Your task to perform on an android device: Open calendar and show me the fourth week of next month Image 0: 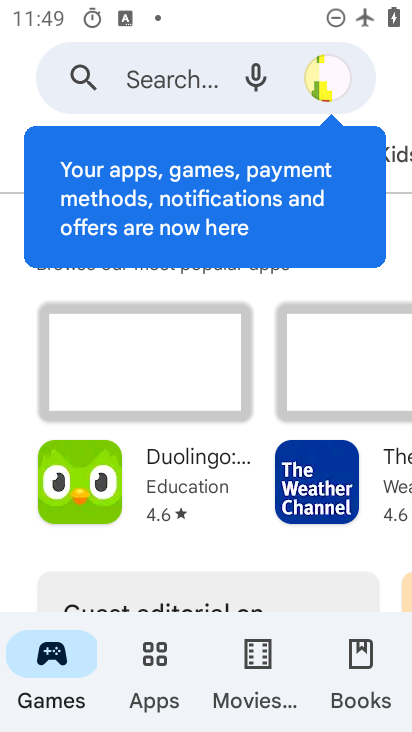
Step 0: press home button
Your task to perform on an android device: Open calendar and show me the fourth week of next month Image 1: 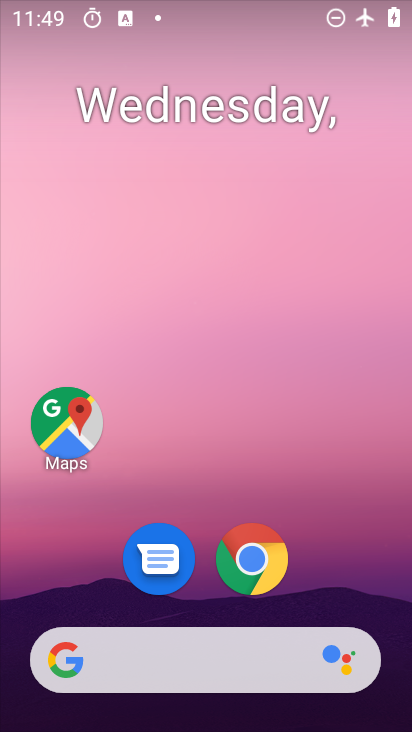
Step 1: drag from (157, 651) to (164, 198)
Your task to perform on an android device: Open calendar and show me the fourth week of next month Image 2: 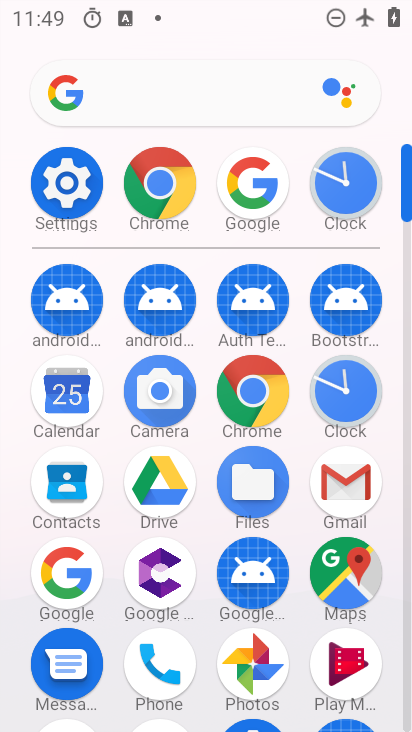
Step 2: click (73, 413)
Your task to perform on an android device: Open calendar and show me the fourth week of next month Image 3: 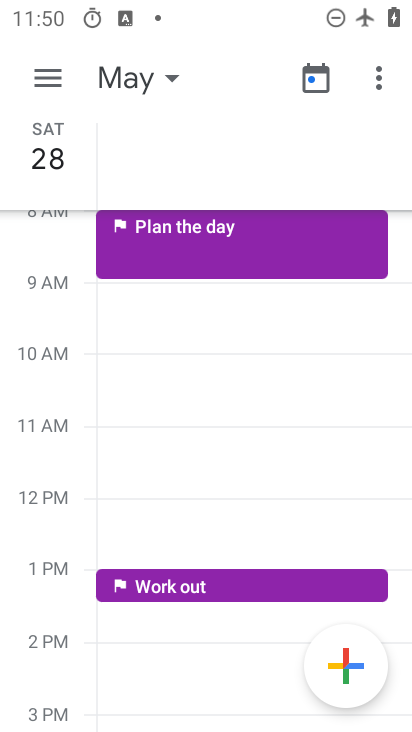
Step 3: click (153, 87)
Your task to perform on an android device: Open calendar and show me the fourth week of next month Image 4: 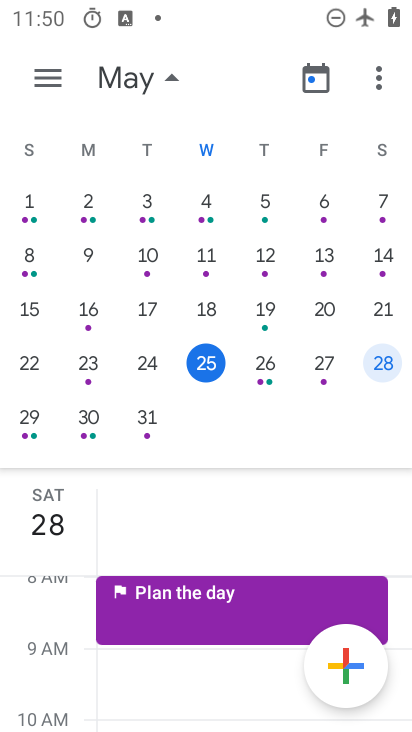
Step 4: drag from (354, 315) to (9, 338)
Your task to perform on an android device: Open calendar and show me the fourth week of next month Image 5: 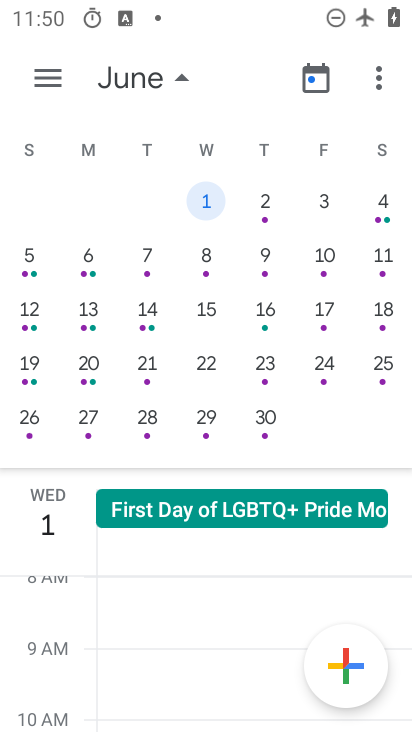
Step 5: click (37, 373)
Your task to perform on an android device: Open calendar and show me the fourth week of next month Image 6: 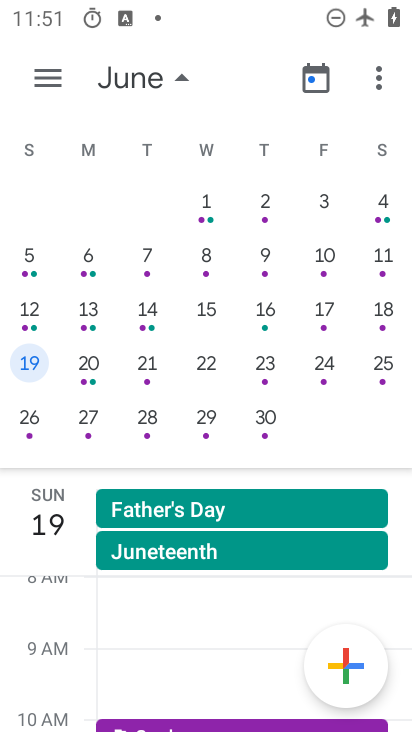
Step 6: task complete